Your task to perform on an android device: toggle location history Image 0: 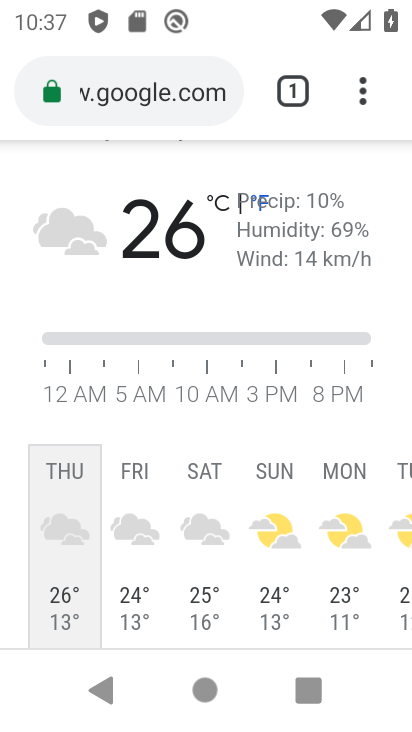
Step 0: press home button
Your task to perform on an android device: toggle location history Image 1: 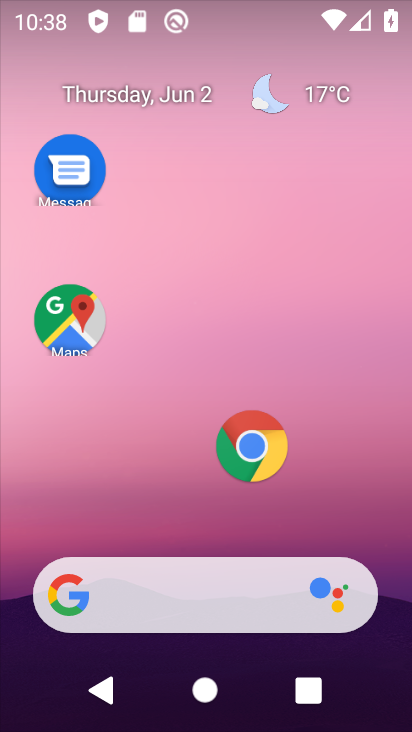
Step 1: click (49, 322)
Your task to perform on an android device: toggle location history Image 2: 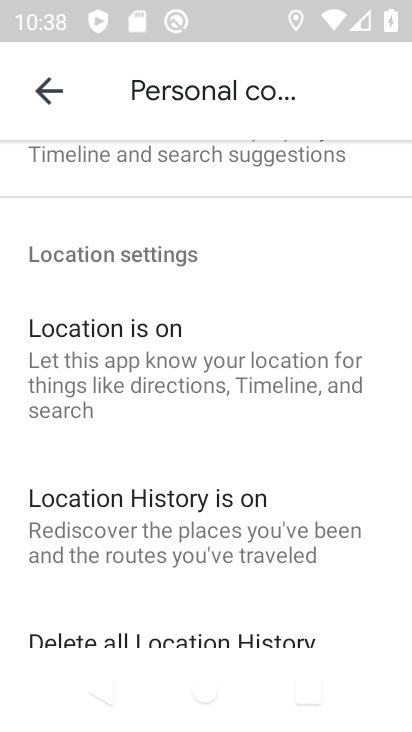
Step 2: click (155, 515)
Your task to perform on an android device: toggle location history Image 3: 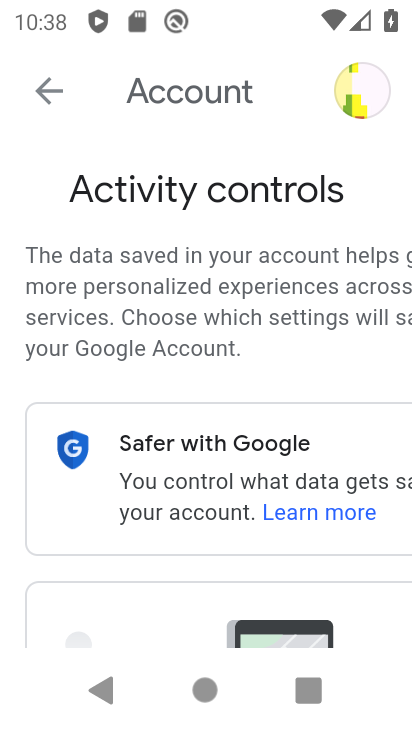
Step 3: drag from (278, 485) to (179, 194)
Your task to perform on an android device: toggle location history Image 4: 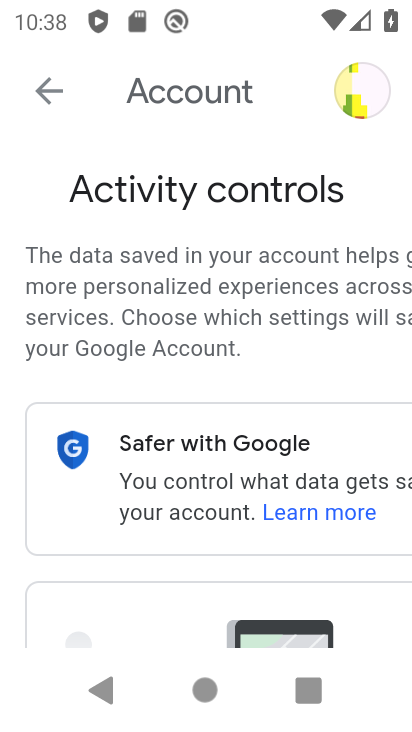
Step 4: drag from (342, 529) to (71, 232)
Your task to perform on an android device: toggle location history Image 5: 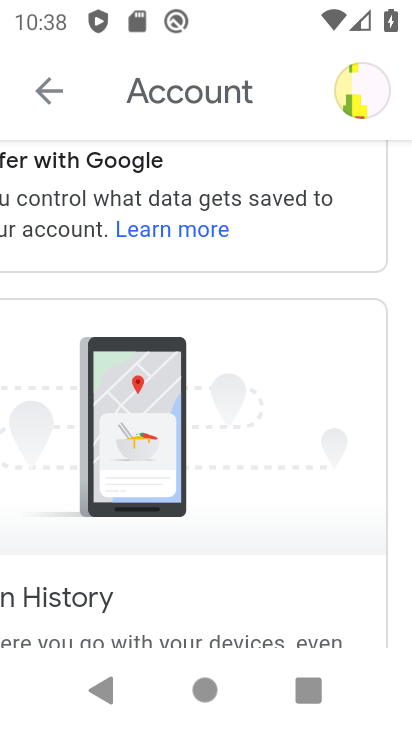
Step 5: drag from (198, 639) to (198, 230)
Your task to perform on an android device: toggle location history Image 6: 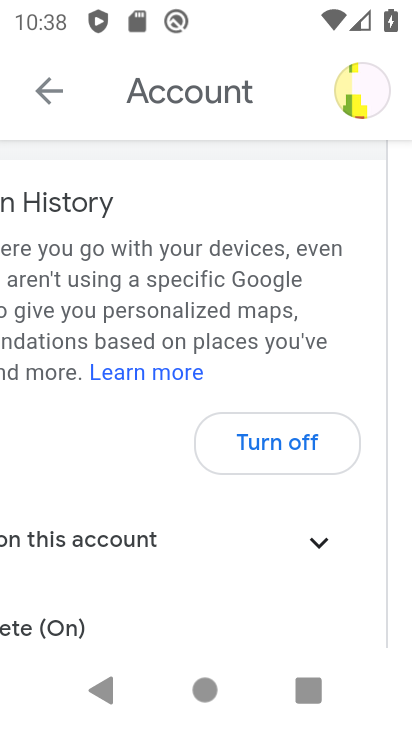
Step 6: click (228, 449)
Your task to perform on an android device: toggle location history Image 7: 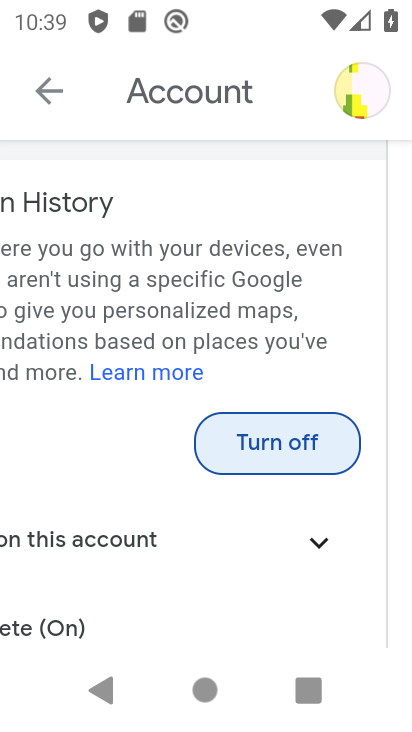
Step 7: click (254, 447)
Your task to perform on an android device: toggle location history Image 8: 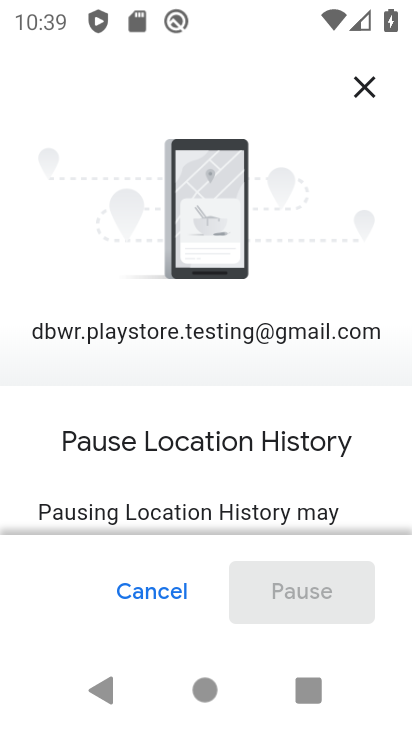
Step 8: drag from (147, 473) to (149, 24)
Your task to perform on an android device: toggle location history Image 9: 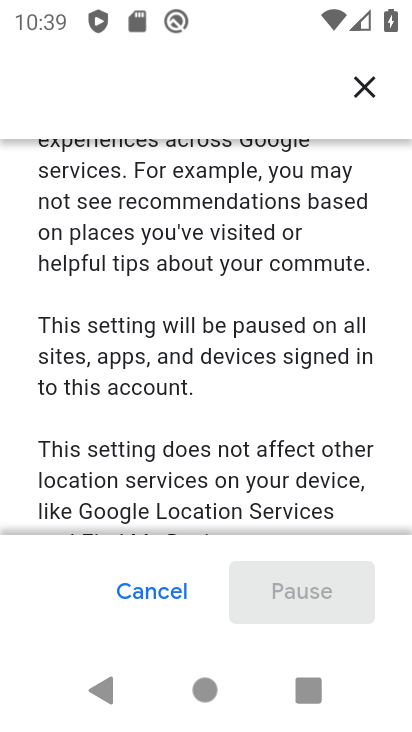
Step 9: drag from (163, 394) to (154, 77)
Your task to perform on an android device: toggle location history Image 10: 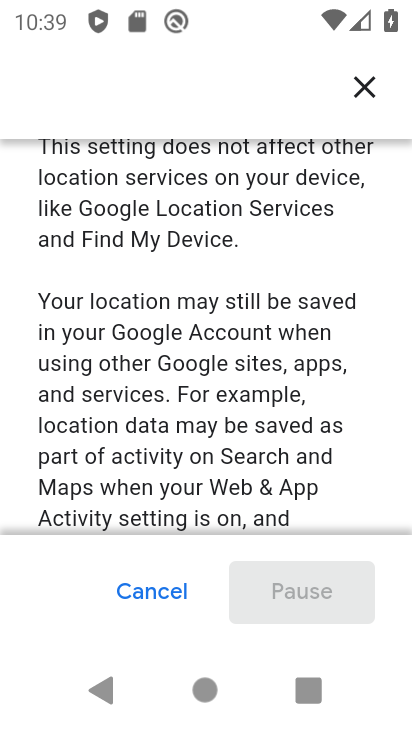
Step 10: drag from (194, 490) to (190, 102)
Your task to perform on an android device: toggle location history Image 11: 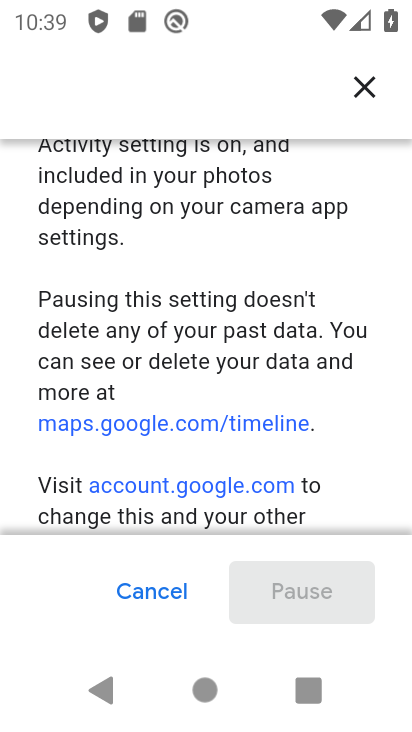
Step 11: drag from (229, 496) to (225, 117)
Your task to perform on an android device: toggle location history Image 12: 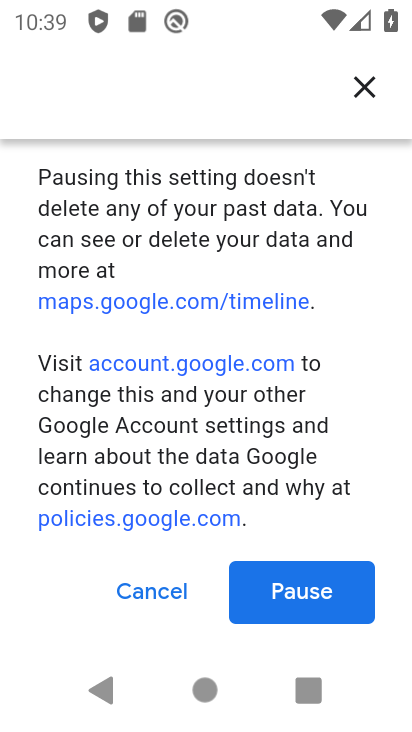
Step 12: click (280, 611)
Your task to perform on an android device: toggle location history Image 13: 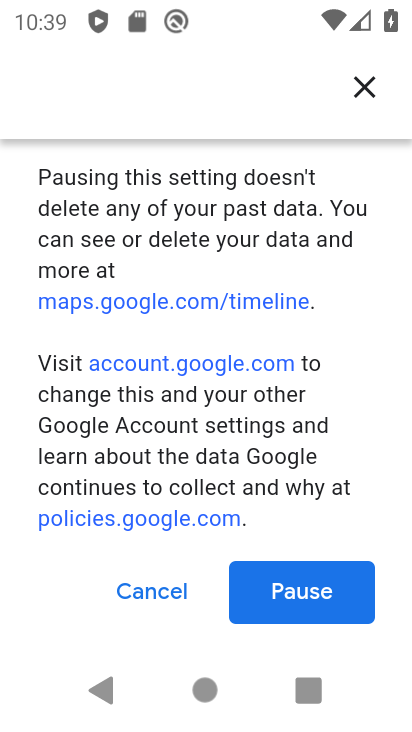
Step 13: click (280, 611)
Your task to perform on an android device: toggle location history Image 14: 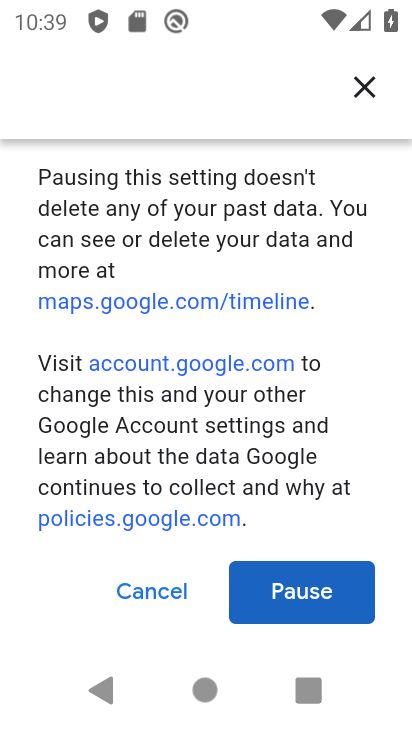
Step 14: click (280, 611)
Your task to perform on an android device: toggle location history Image 15: 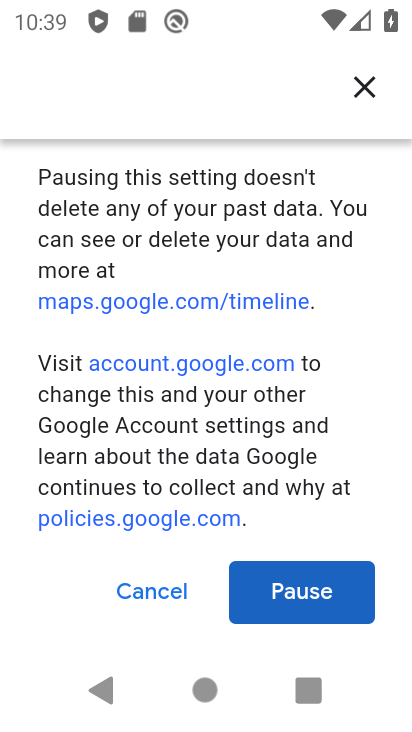
Step 15: click (280, 611)
Your task to perform on an android device: toggle location history Image 16: 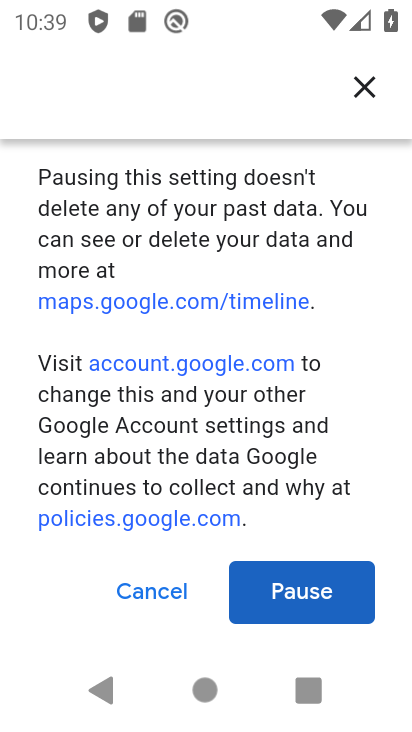
Step 16: click (280, 611)
Your task to perform on an android device: toggle location history Image 17: 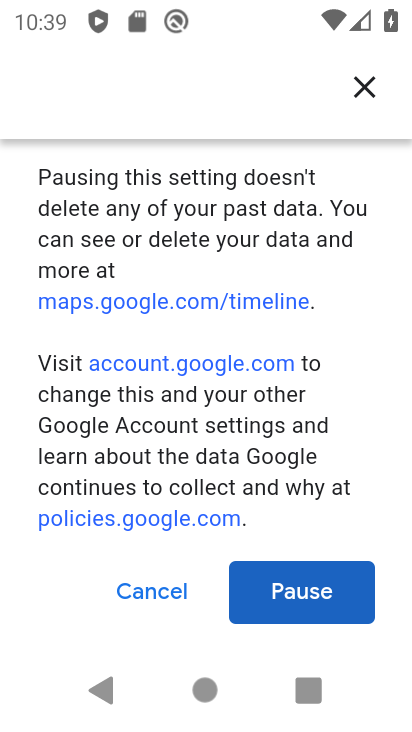
Step 17: click (280, 611)
Your task to perform on an android device: toggle location history Image 18: 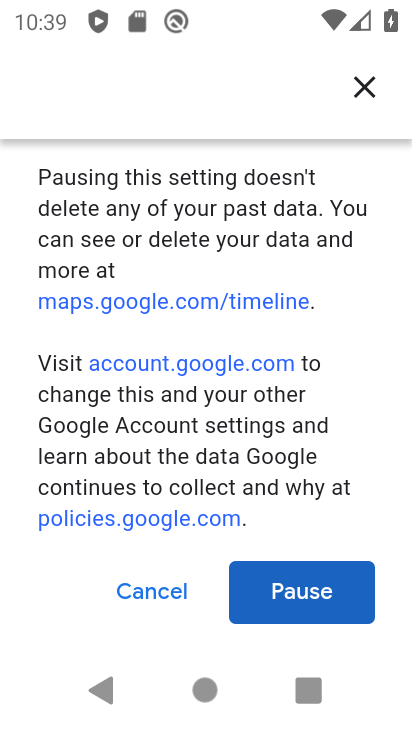
Step 18: click (280, 611)
Your task to perform on an android device: toggle location history Image 19: 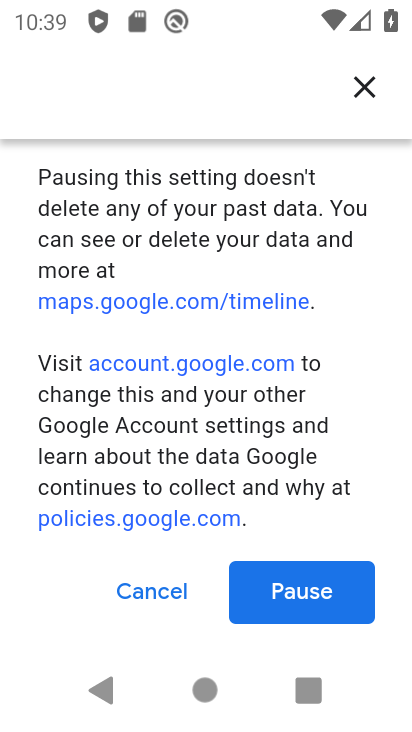
Step 19: click (253, 587)
Your task to perform on an android device: toggle location history Image 20: 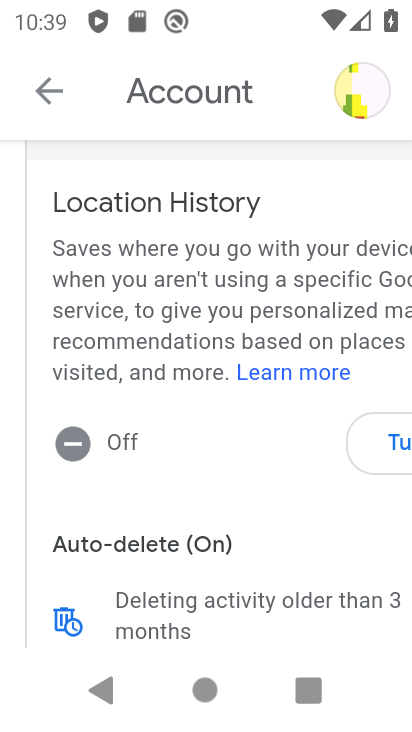
Step 20: task complete